Your task to perform on an android device: Go to calendar. Show me events next week Image 0: 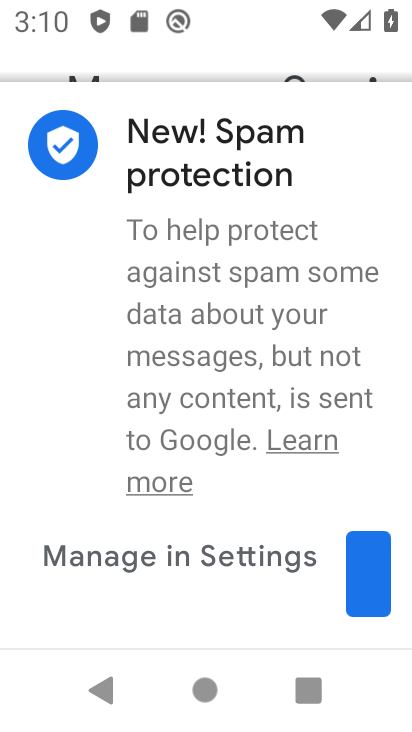
Step 0: press home button
Your task to perform on an android device: Go to calendar. Show me events next week Image 1: 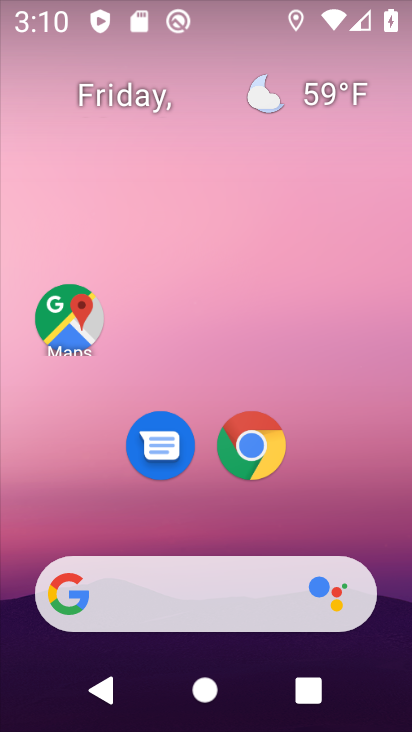
Step 1: drag from (403, 592) to (338, 102)
Your task to perform on an android device: Go to calendar. Show me events next week Image 2: 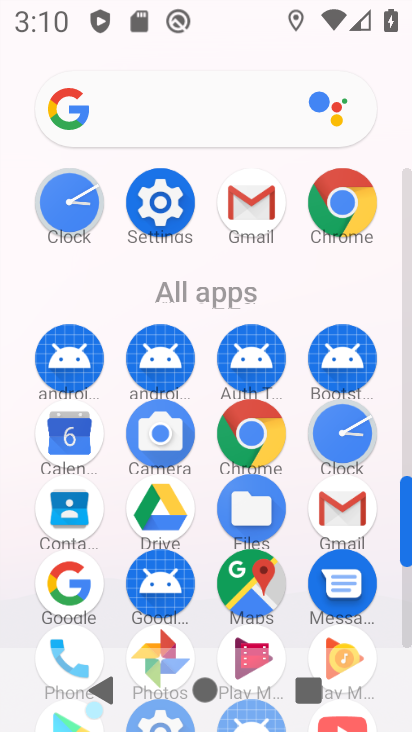
Step 2: click (63, 424)
Your task to perform on an android device: Go to calendar. Show me events next week Image 3: 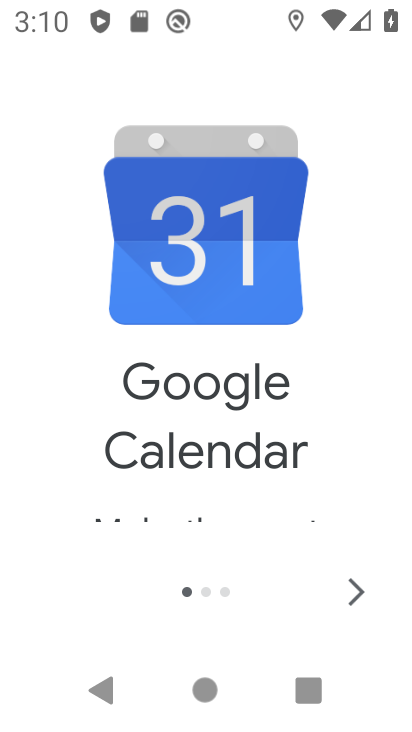
Step 3: click (349, 590)
Your task to perform on an android device: Go to calendar. Show me events next week Image 4: 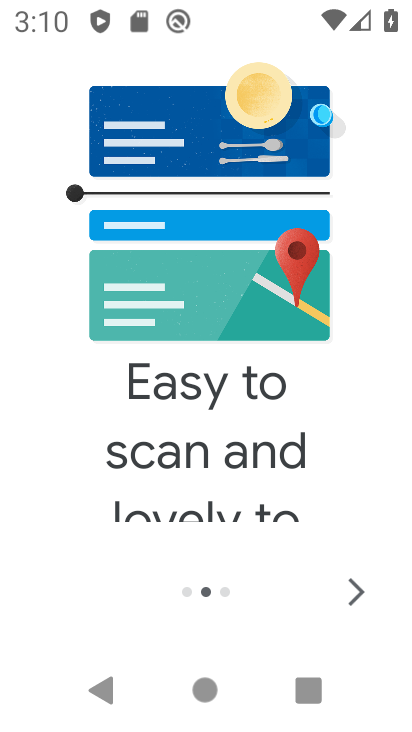
Step 4: click (349, 590)
Your task to perform on an android device: Go to calendar. Show me events next week Image 5: 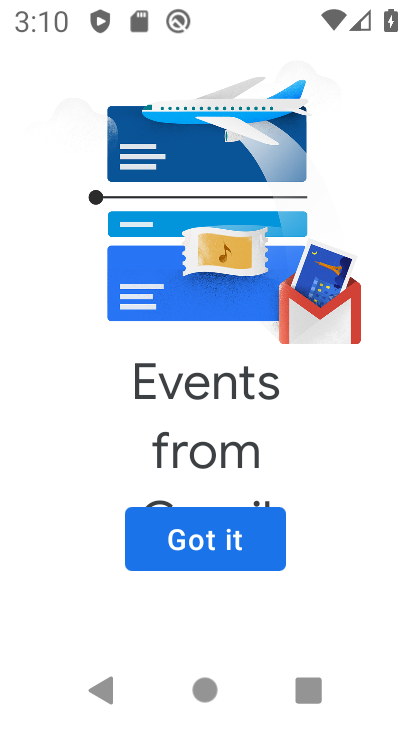
Step 5: click (199, 549)
Your task to perform on an android device: Go to calendar. Show me events next week Image 6: 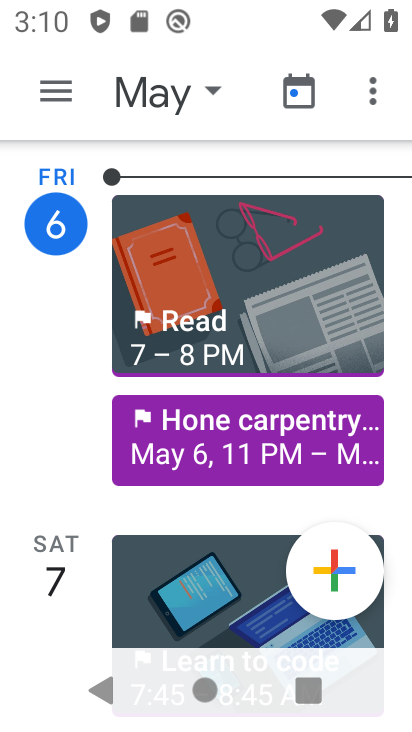
Step 6: click (56, 88)
Your task to perform on an android device: Go to calendar. Show me events next week Image 7: 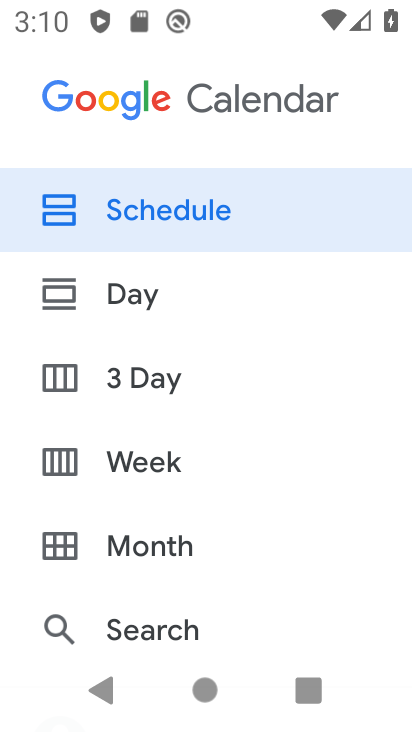
Step 7: click (137, 454)
Your task to perform on an android device: Go to calendar. Show me events next week Image 8: 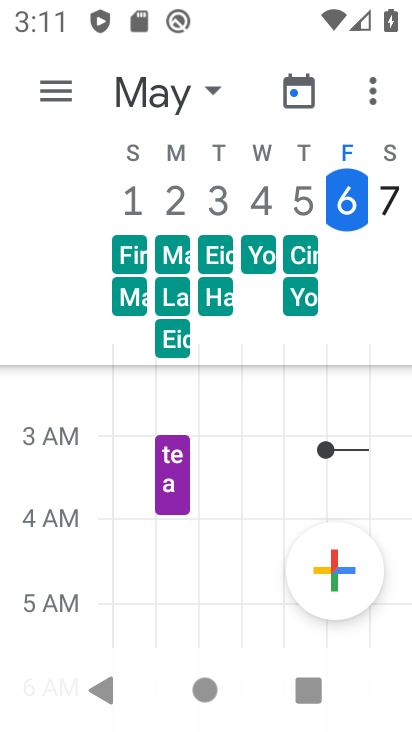
Step 8: click (201, 90)
Your task to perform on an android device: Go to calendar. Show me events next week Image 9: 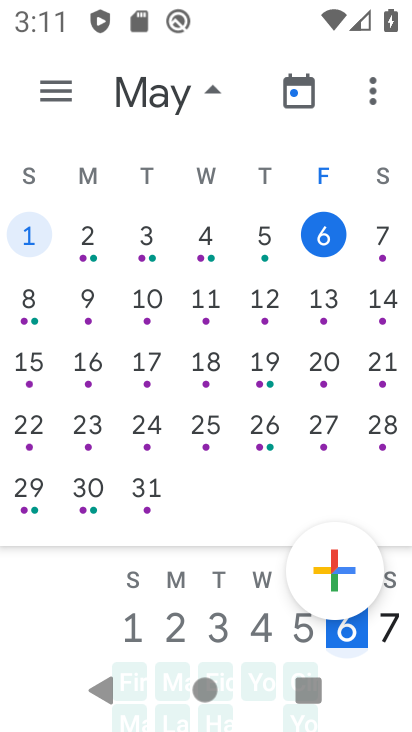
Step 9: click (33, 304)
Your task to perform on an android device: Go to calendar. Show me events next week Image 10: 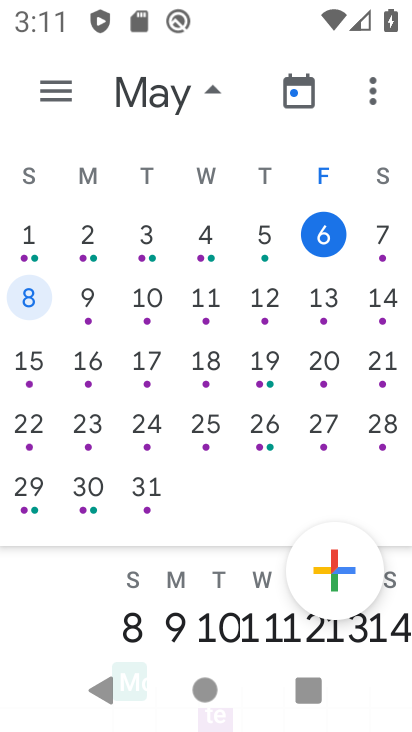
Step 10: task complete